Your task to perform on an android device: open a bookmark in the chrome app Image 0: 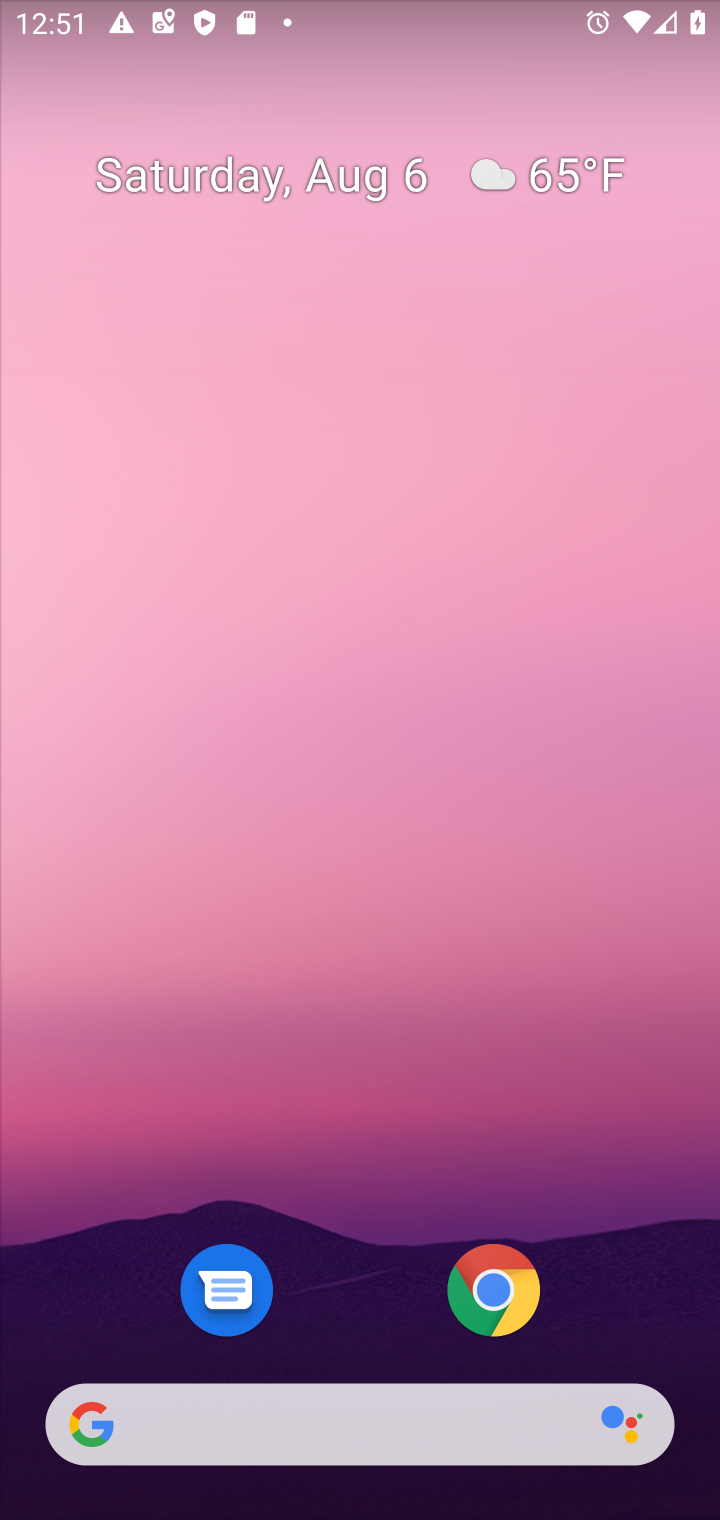
Step 0: press home button
Your task to perform on an android device: open a bookmark in the chrome app Image 1: 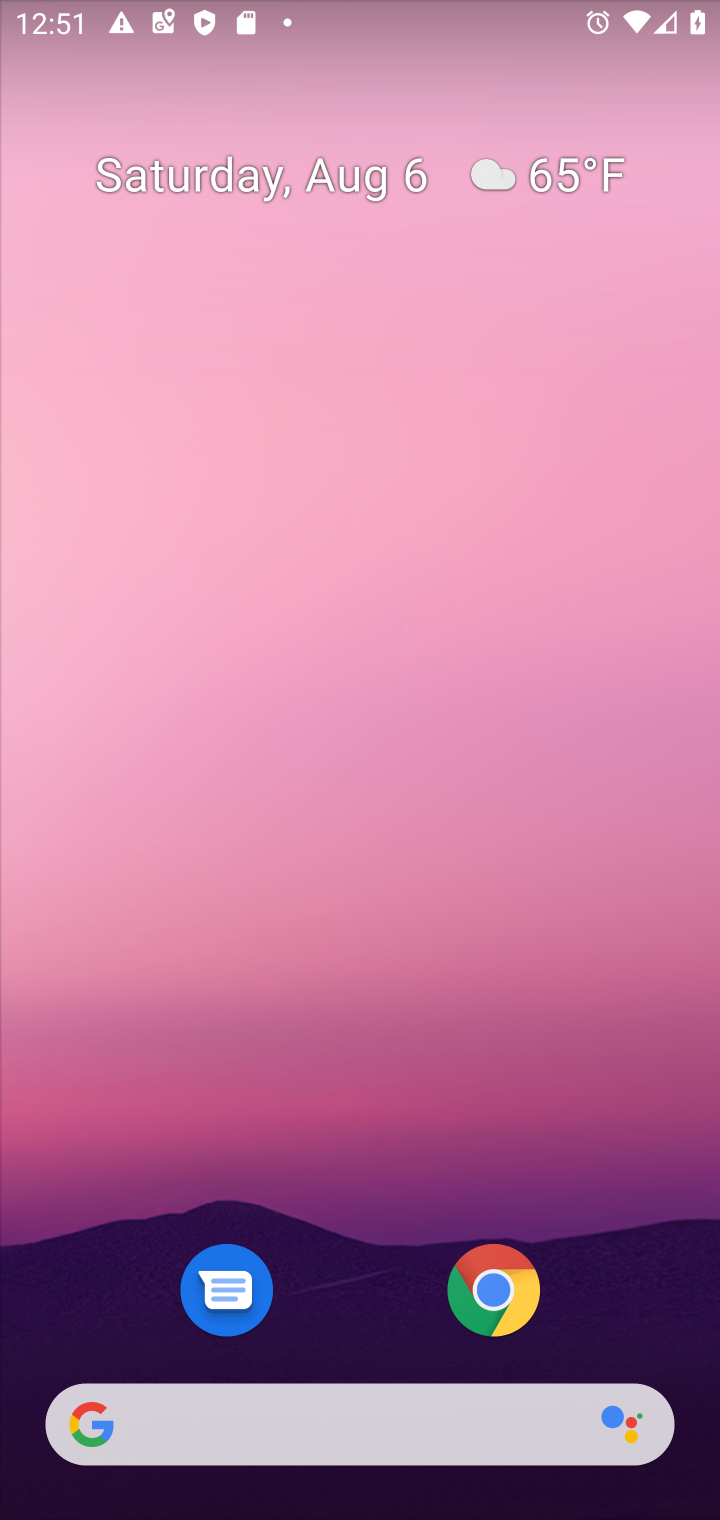
Step 1: click (488, 1281)
Your task to perform on an android device: open a bookmark in the chrome app Image 2: 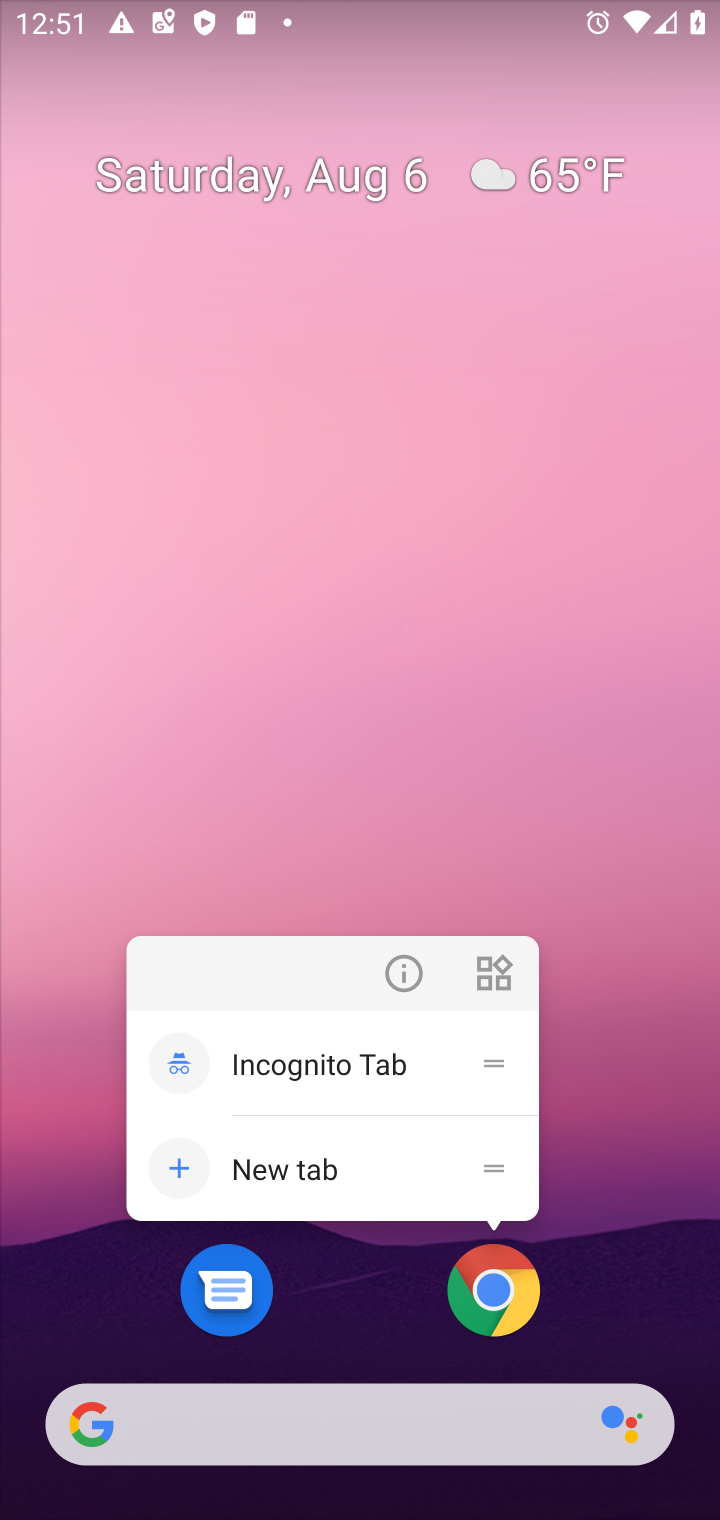
Step 2: click (497, 1275)
Your task to perform on an android device: open a bookmark in the chrome app Image 3: 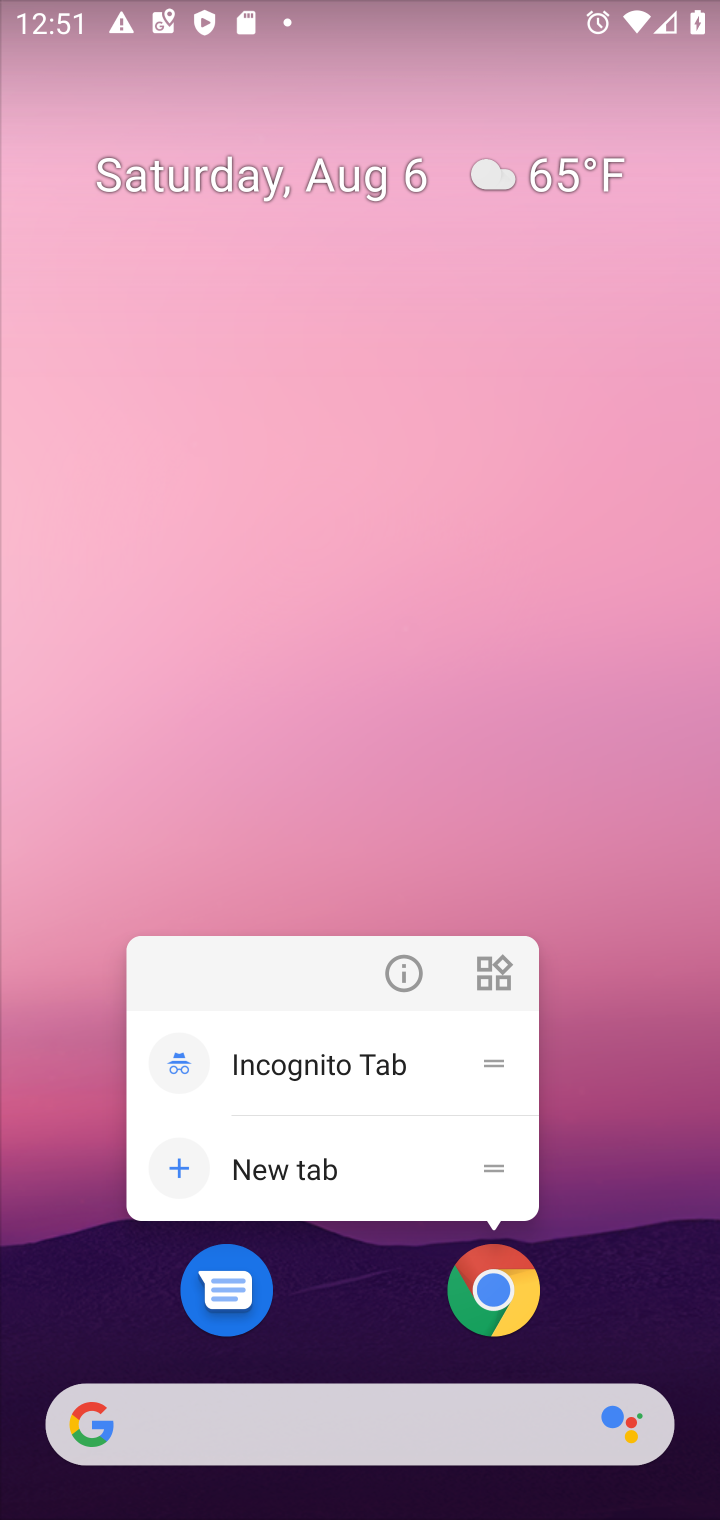
Step 3: click (495, 1273)
Your task to perform on an android device: open a bookmark in the chrome app Image 4: 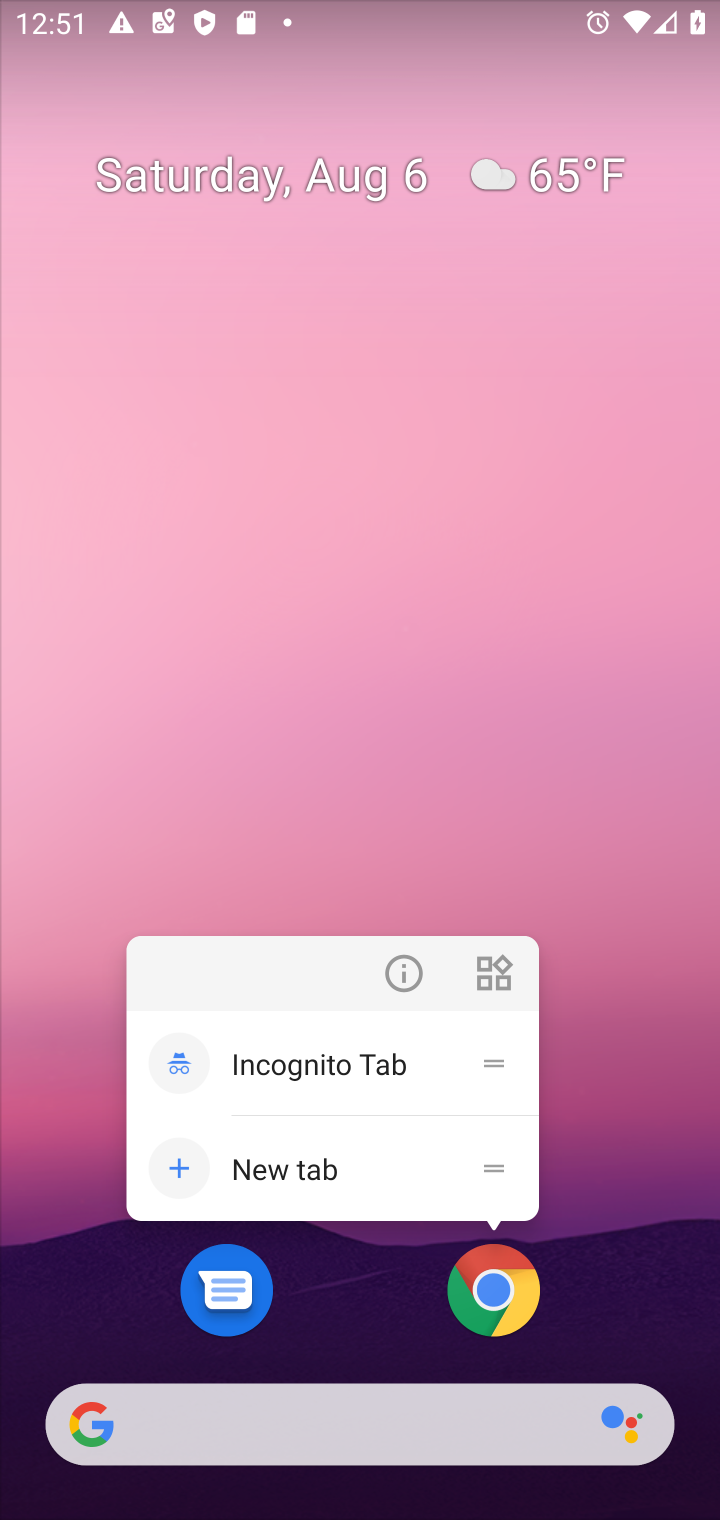
Step 4: click (484, 1267)
Your task to perform on an android device: open a bookmark in the chrome app Image 5: 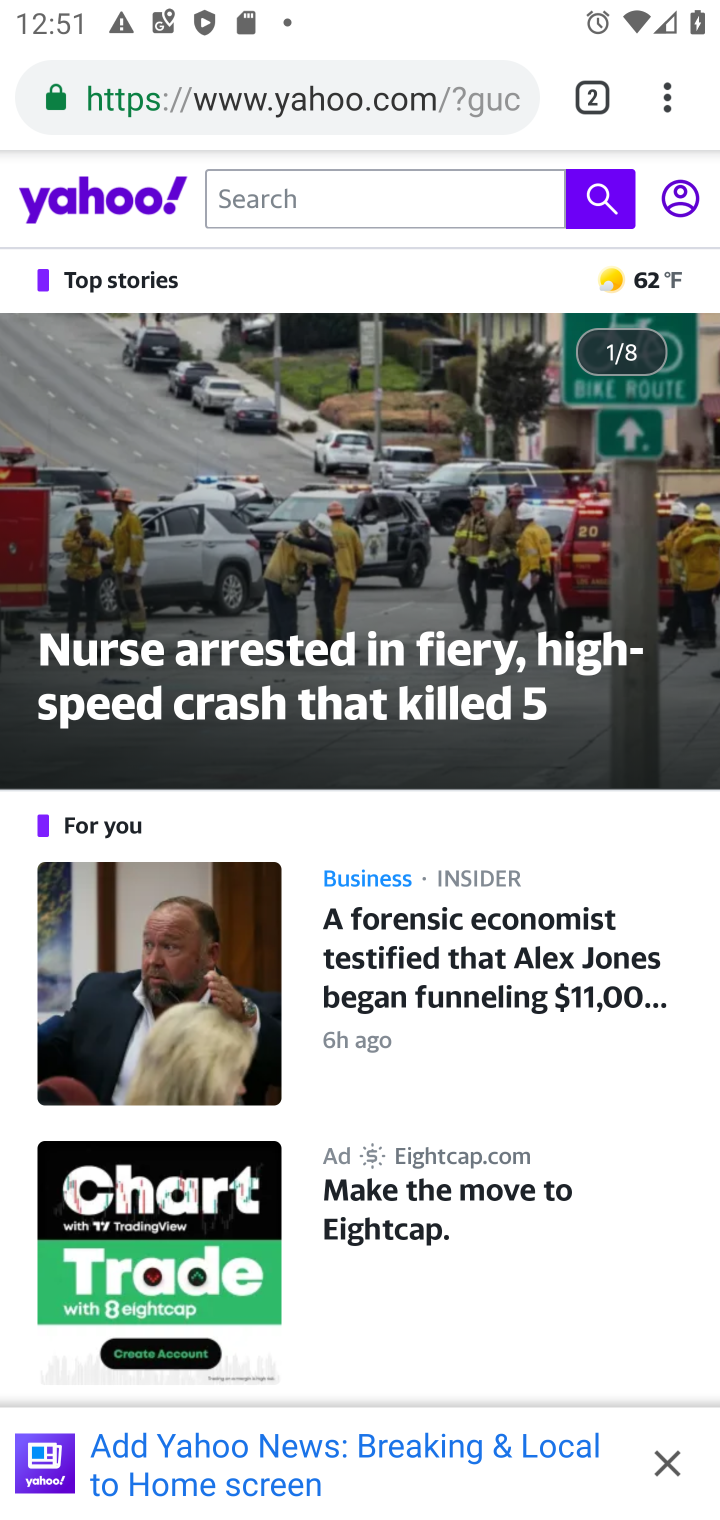
Step 5: click (662, 92)
Your task to perform on an android device: open a bookmark in the chrome app Image 6: 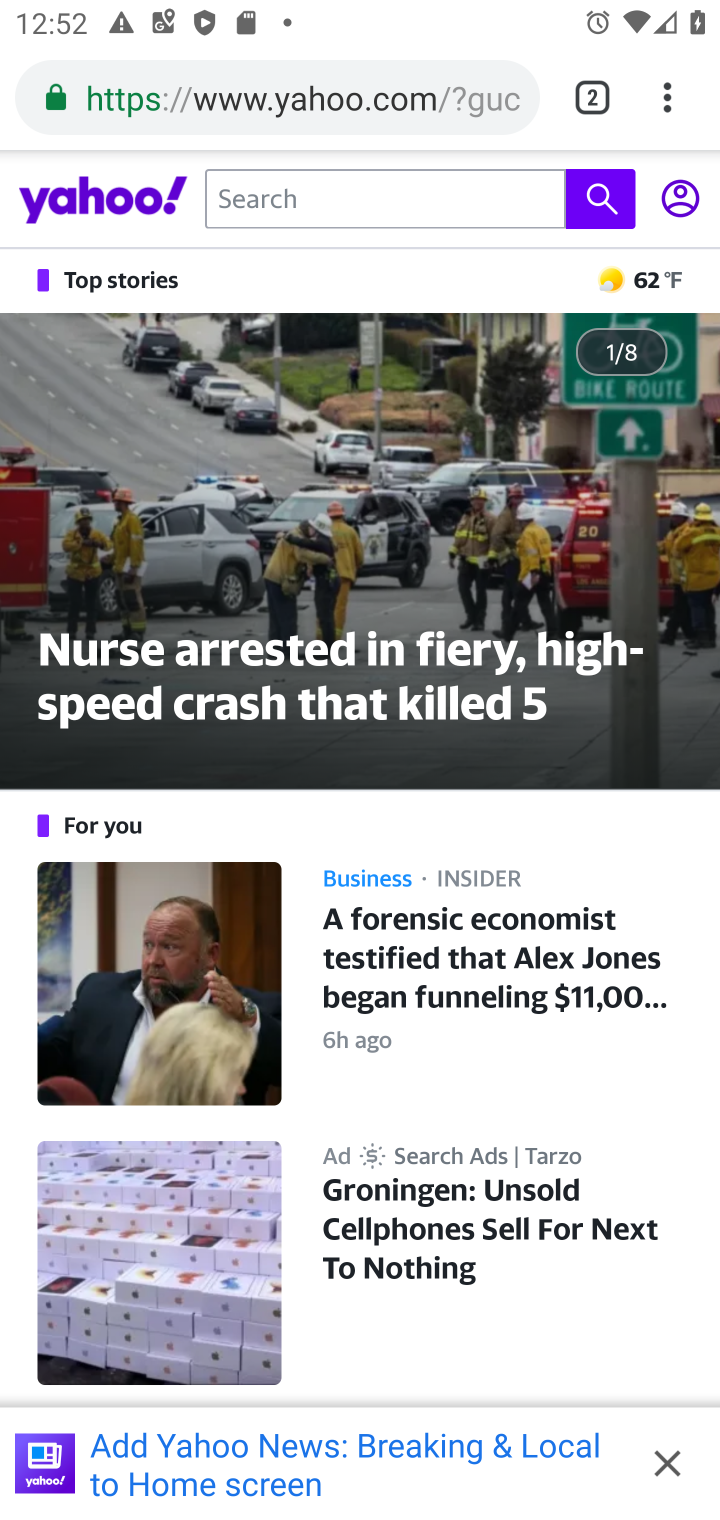
Step 6: click (662, 88)
Your task to perform on an android device: open a bookmark in the chrome app Image 7: 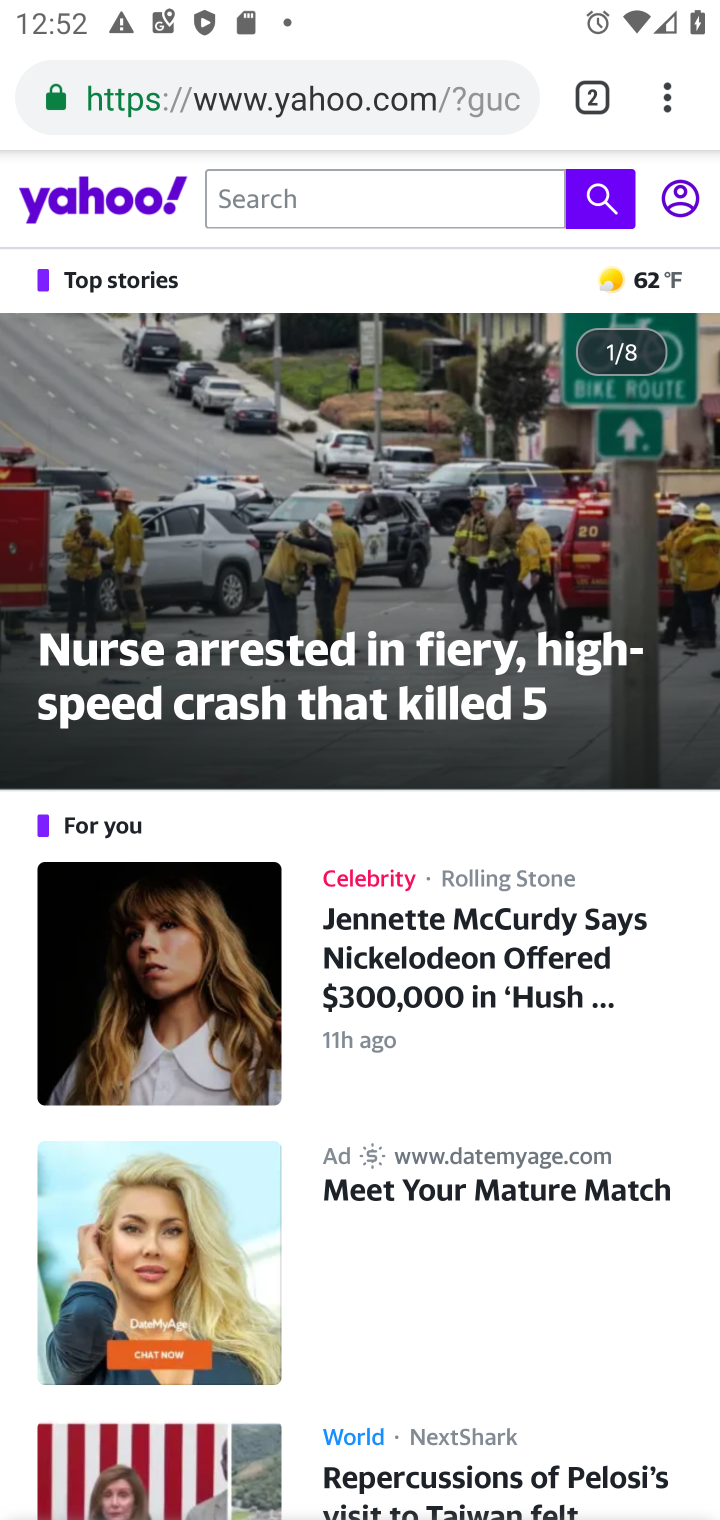
Step 7: click (664, 101)
Your task to perform on an android device: open a bookmark in the chrome app Image 8: 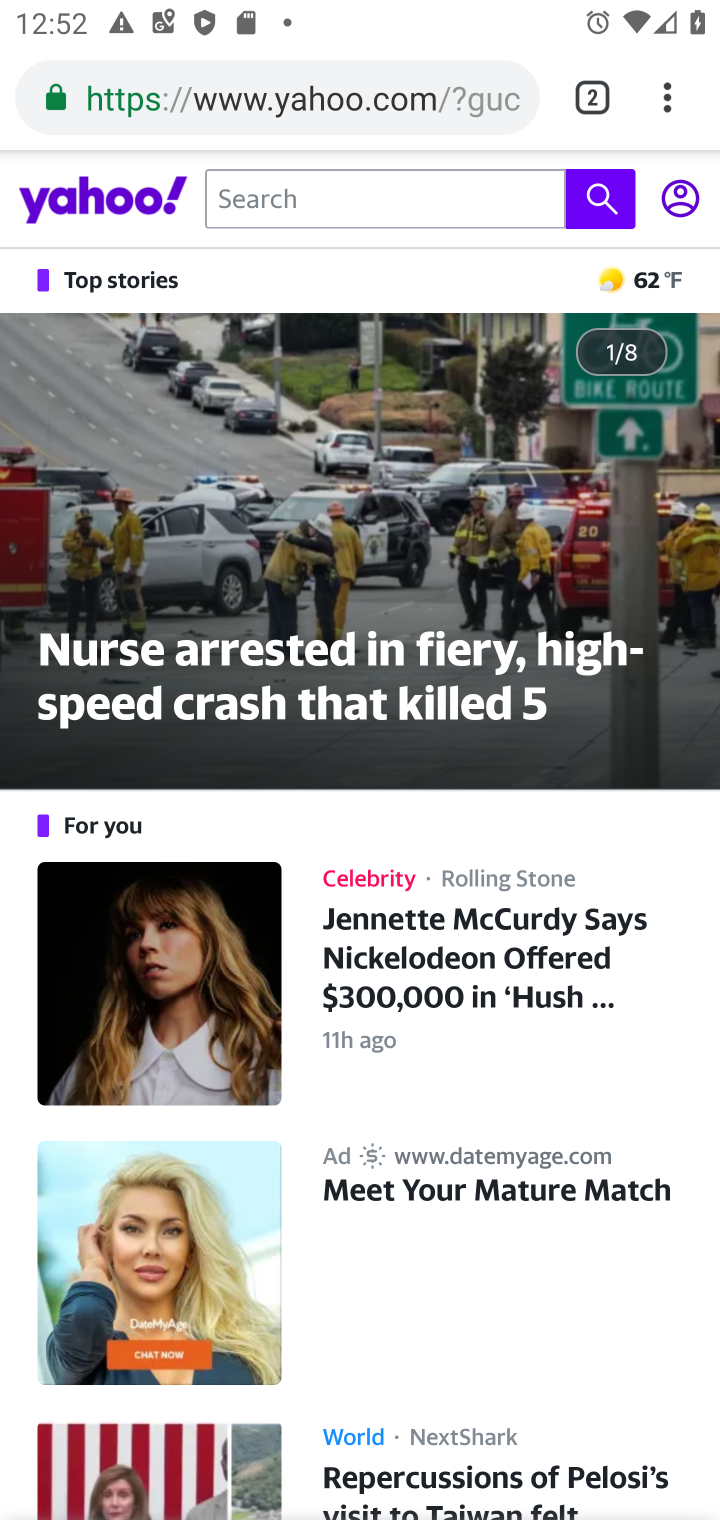
Step 8: click (660, 93)
Your task to perform on an android device: open a bookmark in the chrome app Image 9: 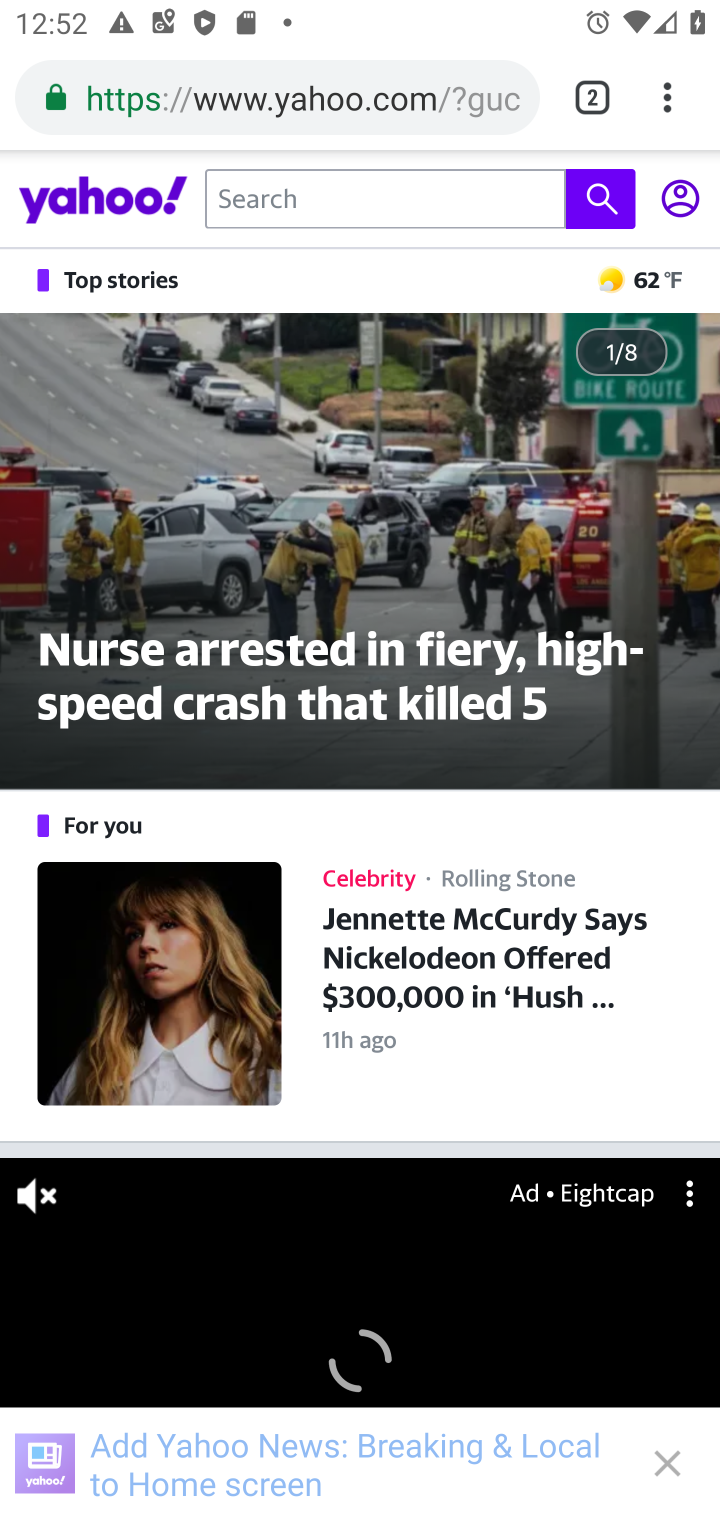
Step 9: click (660, 96)
Your task to perform on an android device: open a bookmark in the chrome app Image 10: 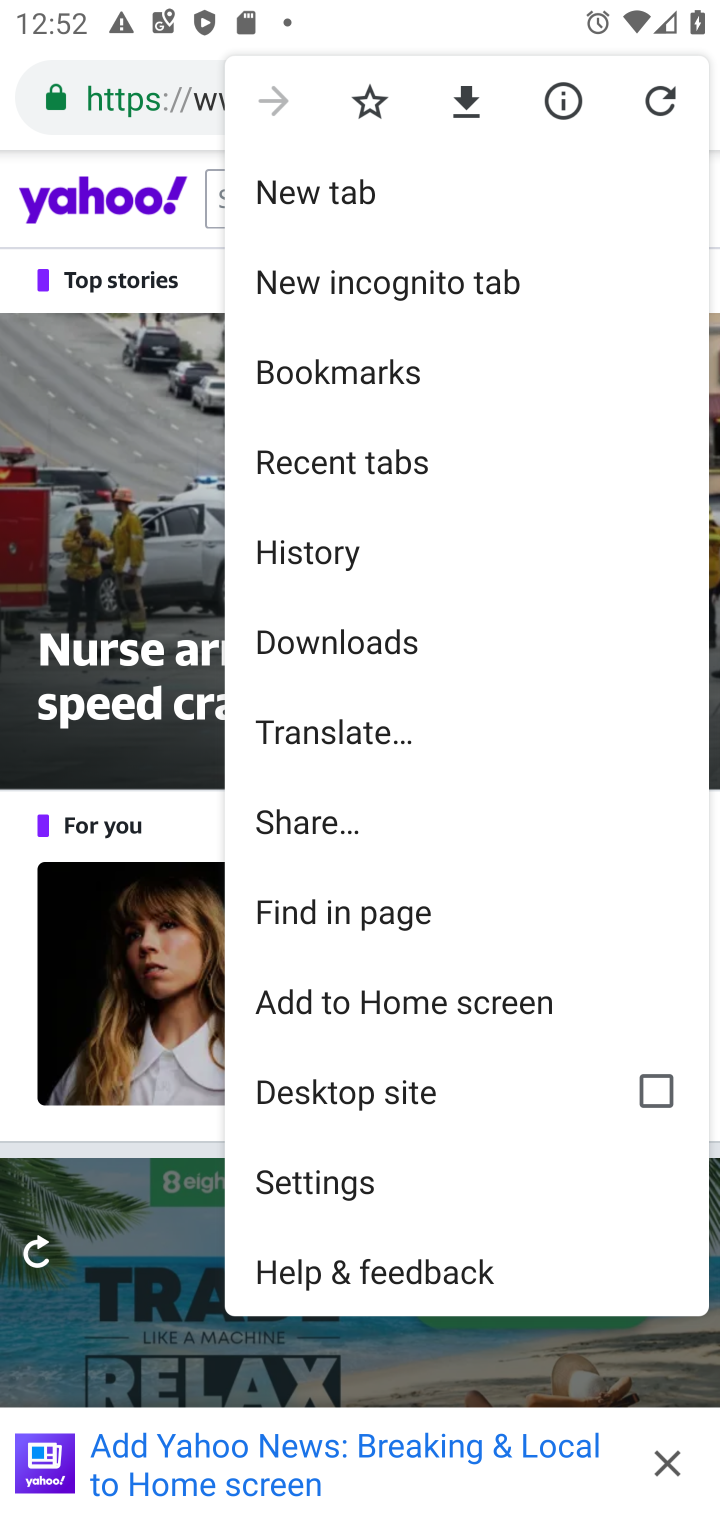
Step 10: click (415, 364)
Your task to perform on an android device: open a bookmark in the chrome app Image 11: 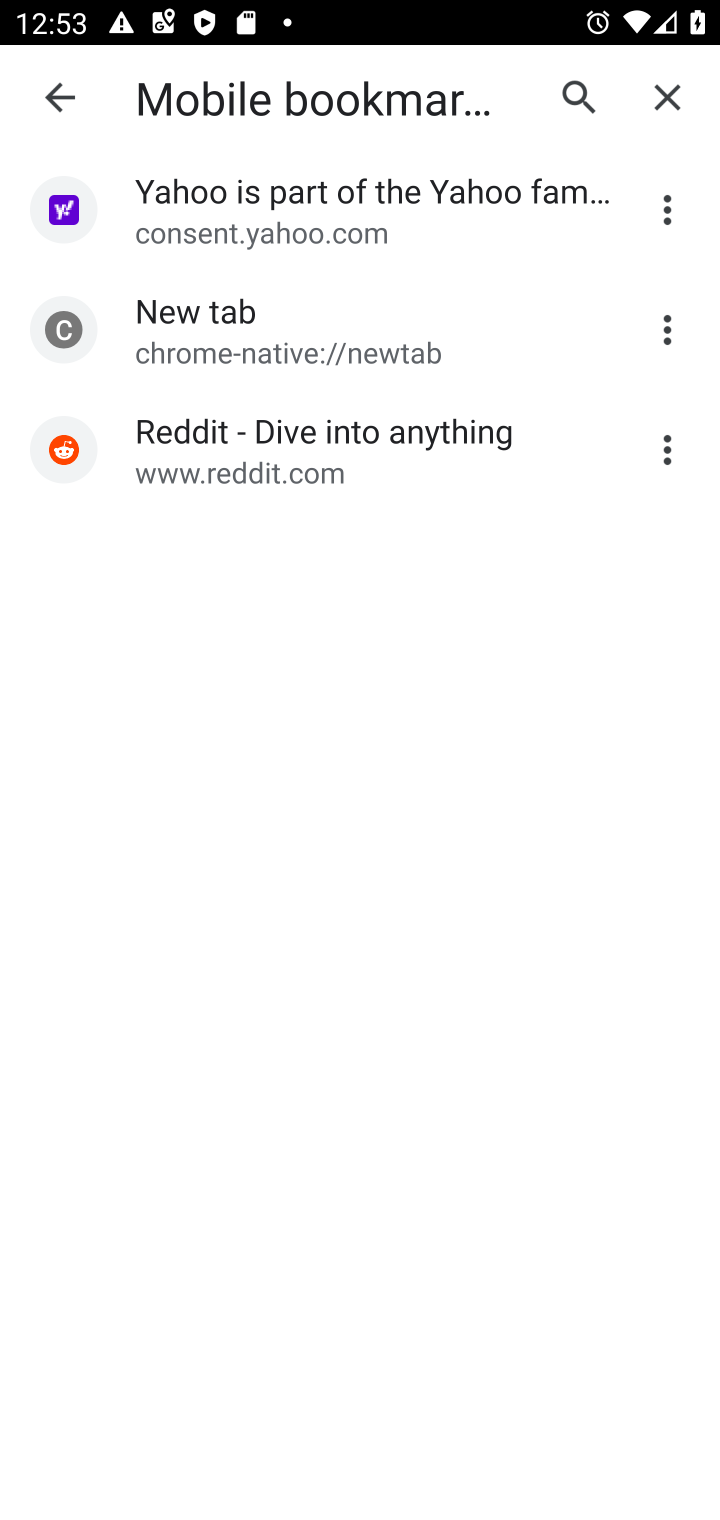
Step 11: task complete